Your task to perform on an android device: move an email to a new category in the gmail app Image 0: 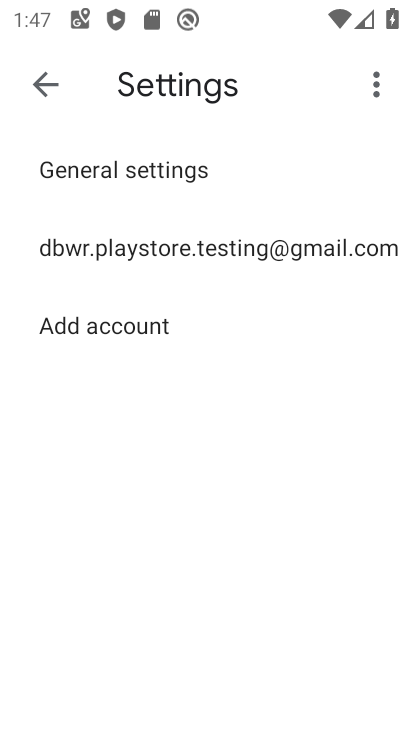
Step 0: press home button
Your task to perform on an android device: move an email to a new category in the gmail app Image 1: 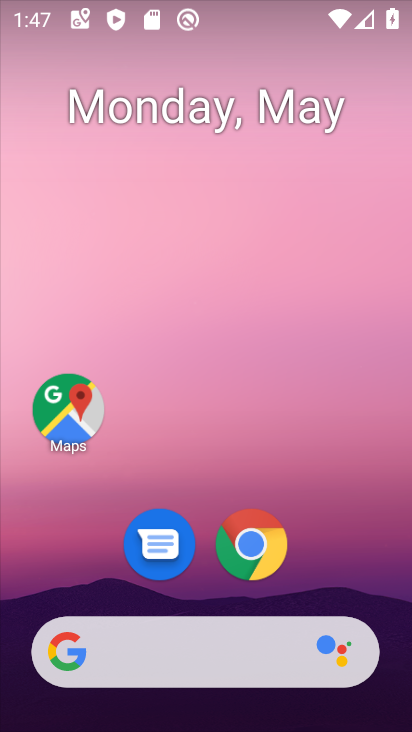
Step 1: drag from (358, 584) to (358, 161)
Your task to perform on an android device: move an email to a new category in the gmail app Image 2: 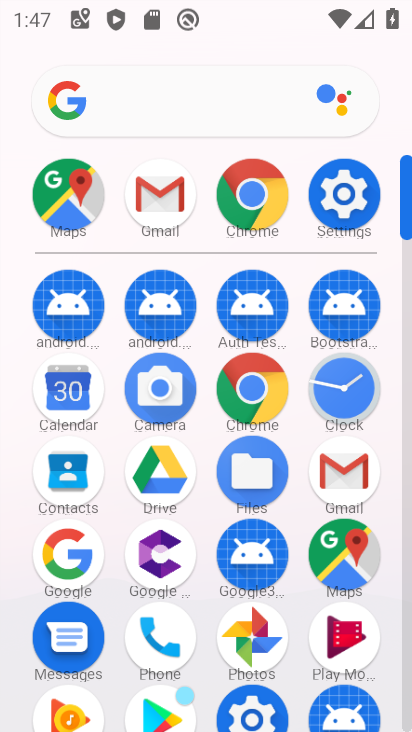
Step 2: click (359, 480)
Your task to perform on an android device: move an email to a new category in the gmail app Image 3: 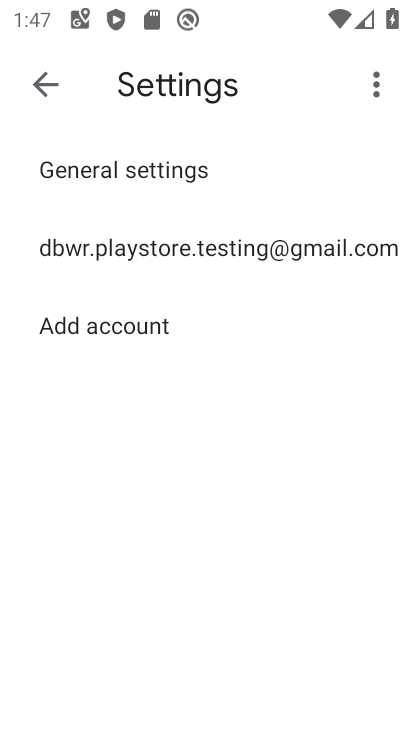
Step 3: click (42, 82)
Your task to perform on an android device: move an email to a new category in the gmail app Image 4: 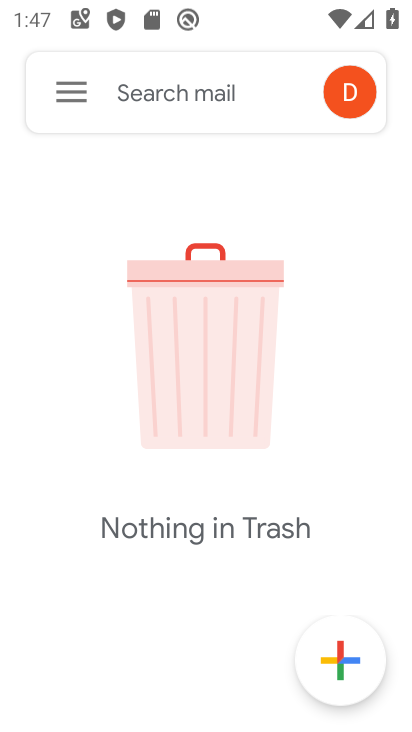
Step 4: click (73, 101)
Your task to perform on an android device: move an email to a new category in the gmail app Image 5: 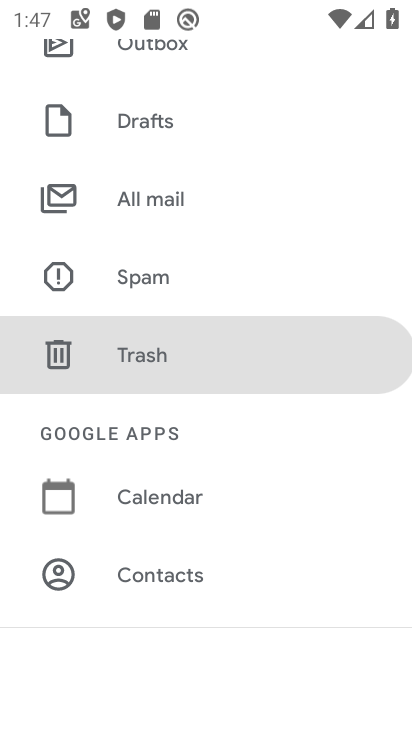
Step 5: drag from (243, 177) to (236, 328)
Your task to perform on an android device: move an email to a new category in the gmail app Image 6: 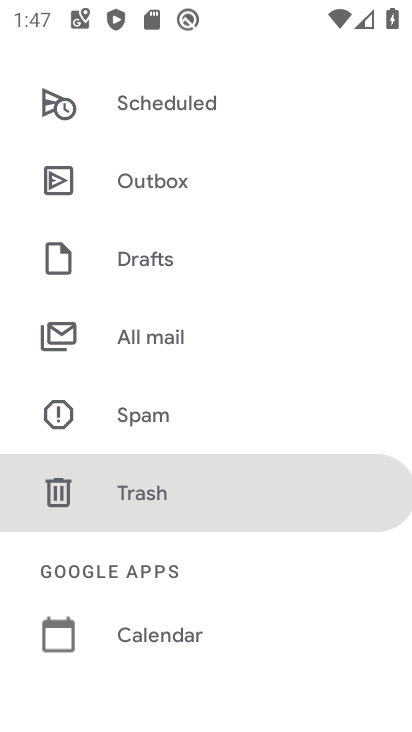
Step 6: drag from (273, 221) to (272, 323)
Your task to perform on an android device: move an email to a new category in the gmail app Image 7: 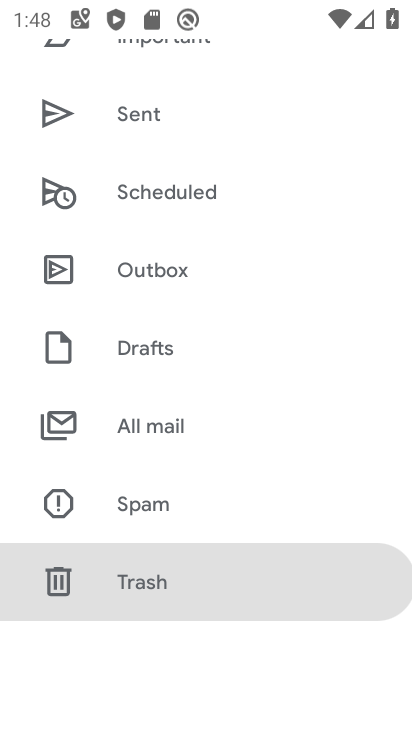
Step 7: drag from (272, 179) to (273, 279)
Your task to perform on an android device: move an email to a new category in the gmail app Image 8: 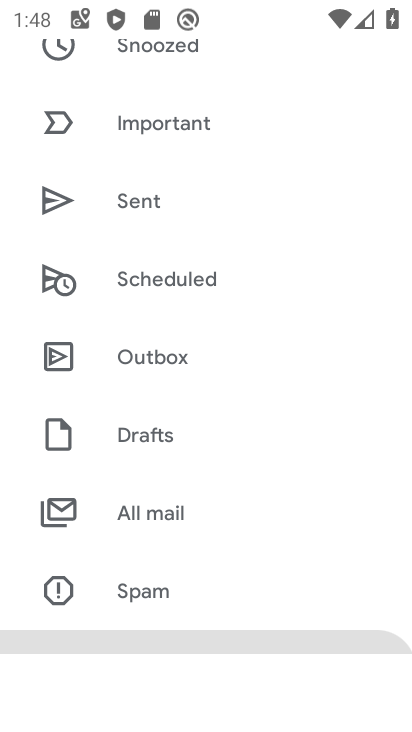
Step 8: drag from (262, 165) to (252, 280)
Your task to perform on an android device: move an email to a new category in the gmail app Image 9: 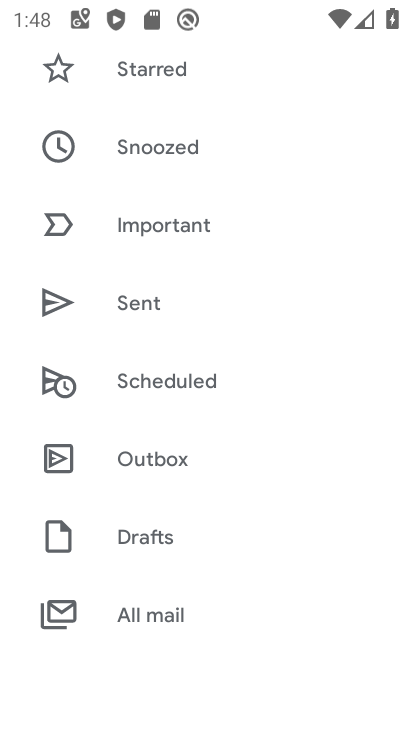
Step 9: drag from (252, 179) to (252, 338)
Your task to perform on an android device: move an email to a new category in the gmail app Image 10: 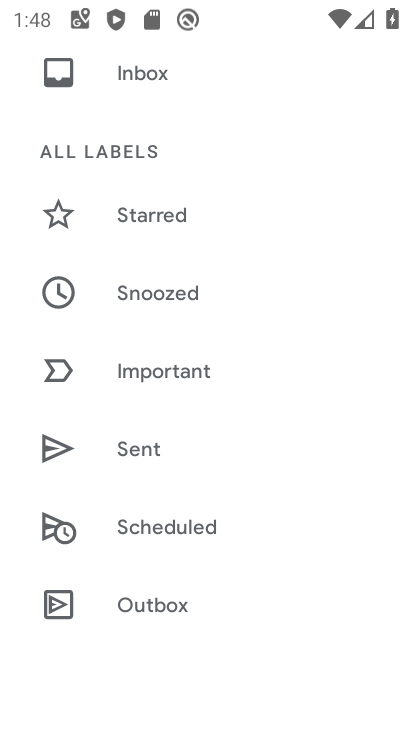
Step 10: drag from (272, 208) to (276, 368)
Your task to perform on an android device: move an email to a new category in the gmail app Image 11: 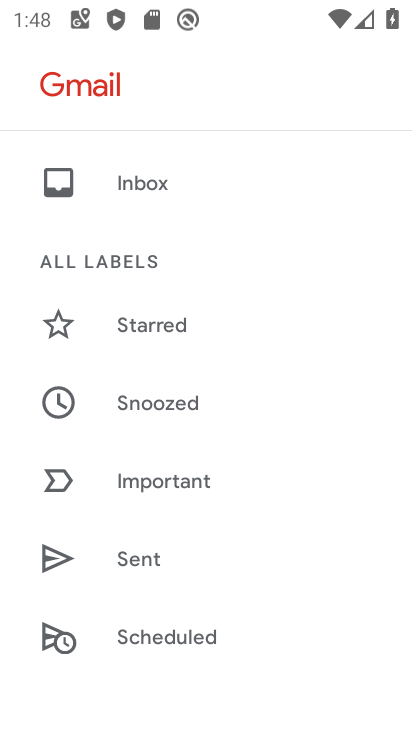
Step 11: drag from (265, 201) to (277, 332)
Your task to perform on an android device: move an email to a new category in the gmail app Image 12: 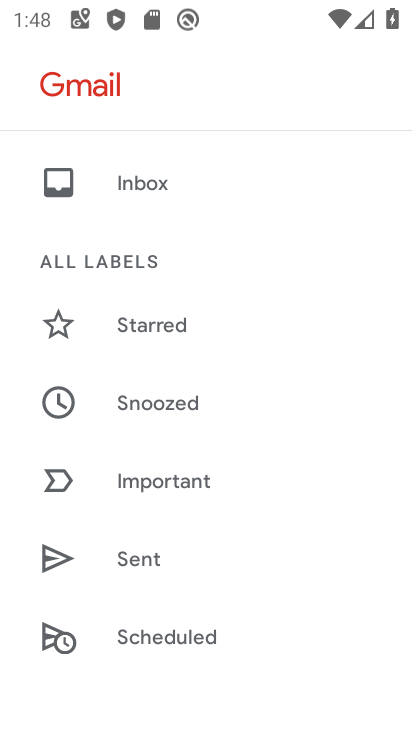
Step 12: click (162, 174)
Your task to perform on an android device: move an email to a new category in the gmail app Image 13: 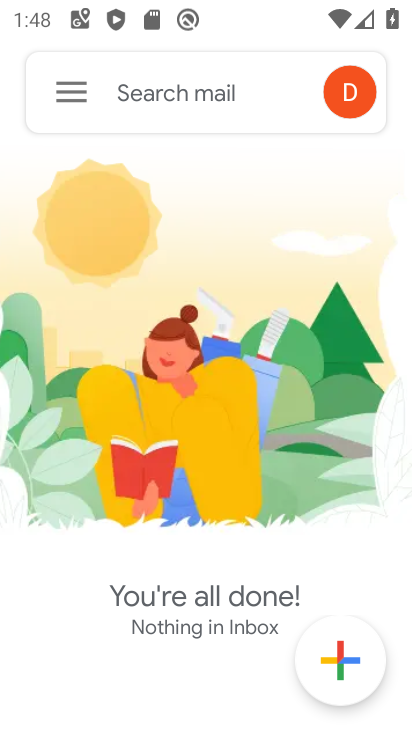
Step 13: task complete